Your task to perform on an android device: open a new tab in the chrome app Image 0: 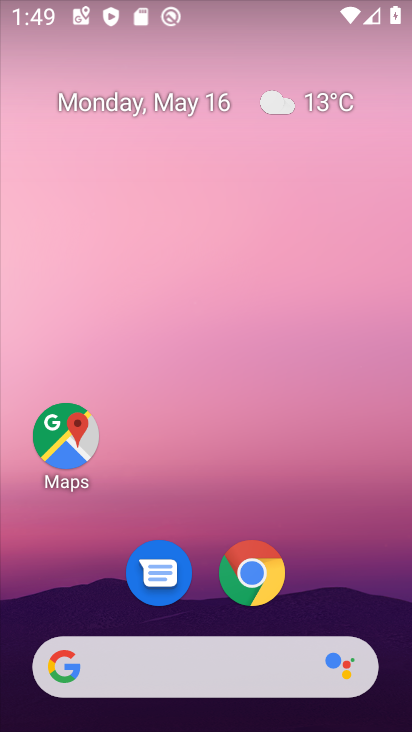
Step 0: click (263, 587)
Your task to perform on an android device: open a new tab in the chrome app Image 1: 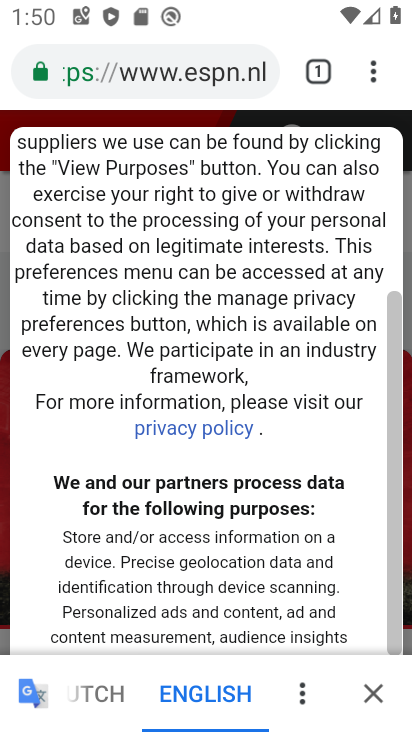
Step 1: click (383, 77)
Your task to perform on an android device: open a new tab in the chrome app Image 2: 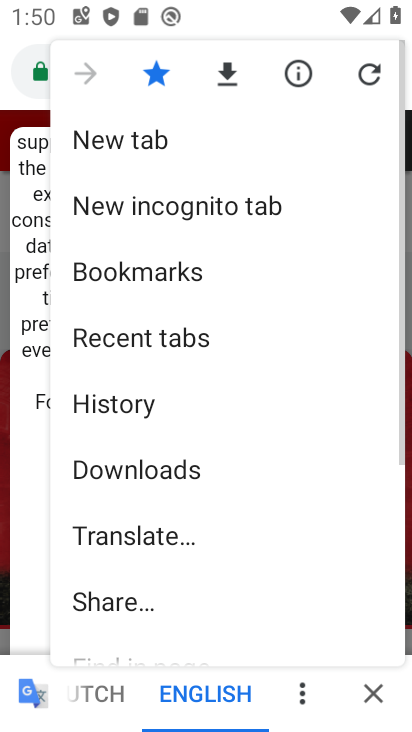
Step 2: click (139, 142)
Your task to perform on an android device: open a new tab in the chrome app Image 3: 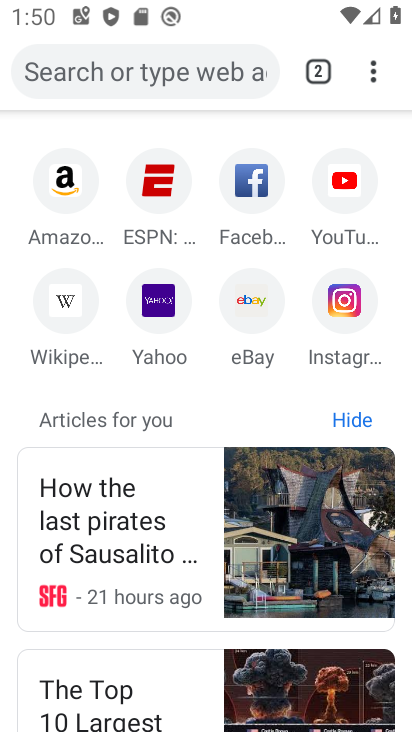
Step 3: task complete